Your task to perform on an android device: check data usage Image 0: 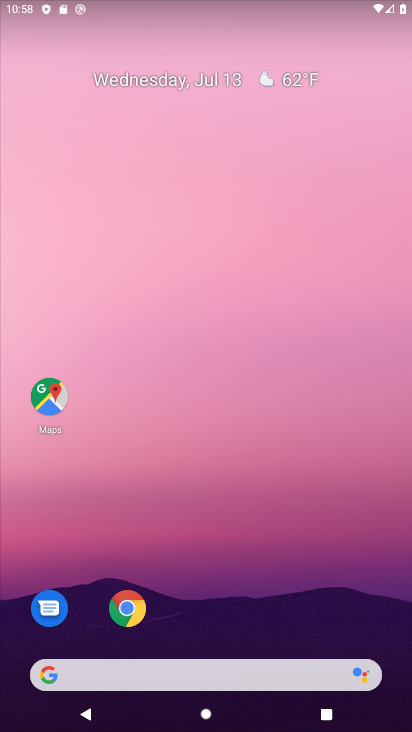
Step 0: drag from (240, 725) to (226, 90)
Your task to perform on an android device: check data usage Image 1: 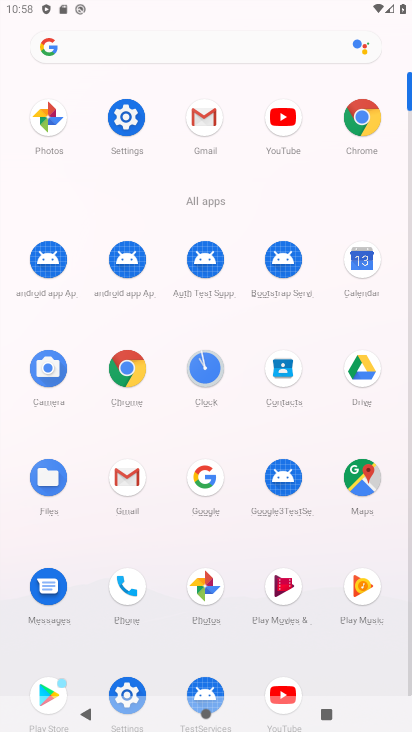
Step 1: click (125, 115)
Your task to perform on an android device: check data usage Image 2: 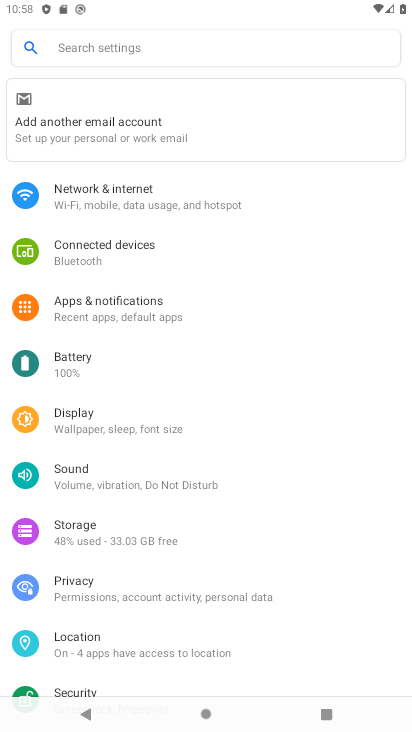
Step 2: click (99, 202)
Your task to perform on an android device: check data usage Image 3: 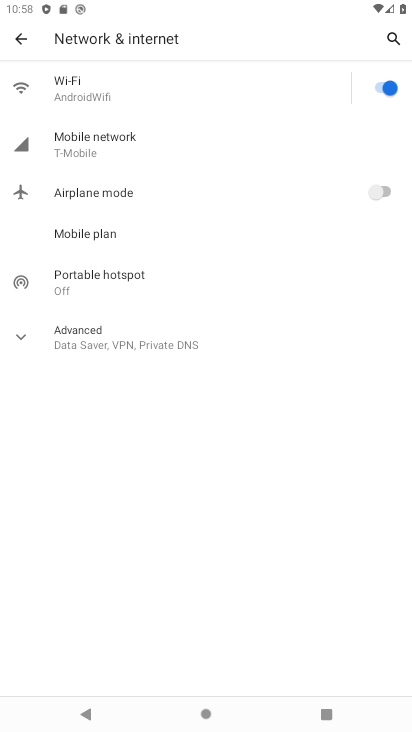
Step 3: click (76, 139)
Your task to perform on an android device: check data usage Image 4: 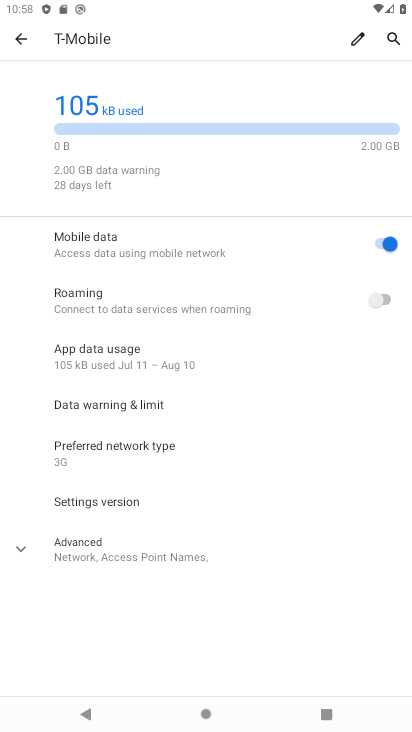
Step 4: click (96, 356)
Your task to perform on an android device: check data usage Image 5: 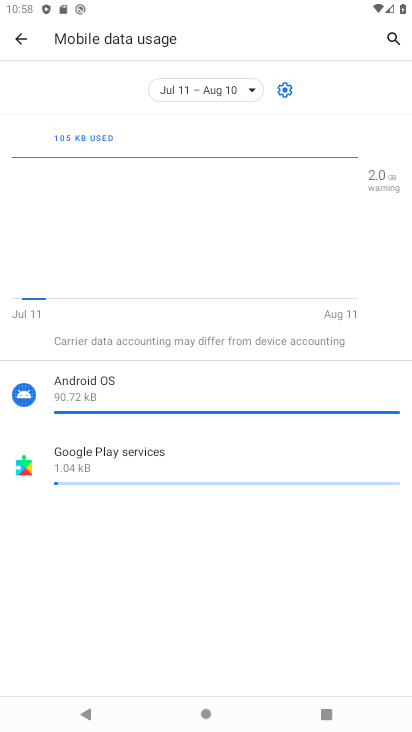
Step 5: task complete